Your task to perform on an android device: turn on showing notifications on the lock screen Image 0: 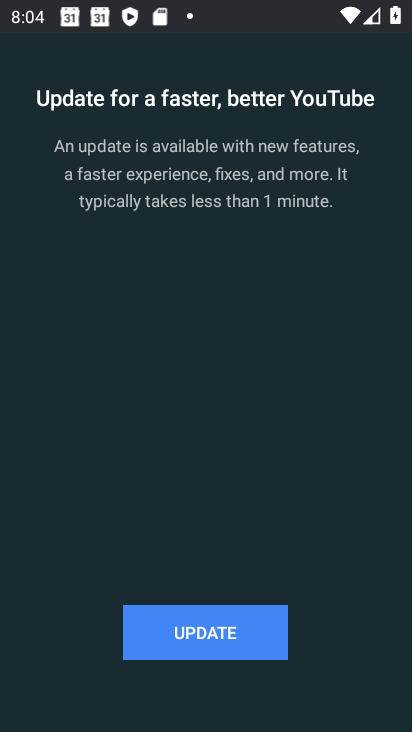
Step 0: press home button
Your task to perform on an android device: turn on showing notifications on the lock screen Image 1: 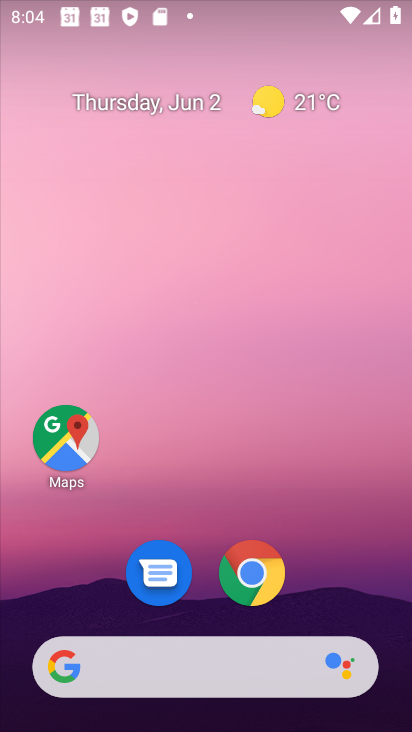
Step 1: drag from (323, 583) to (340, 76)
Your task to perform on an android device: turn on showing notifications on the lock screen Image 2: 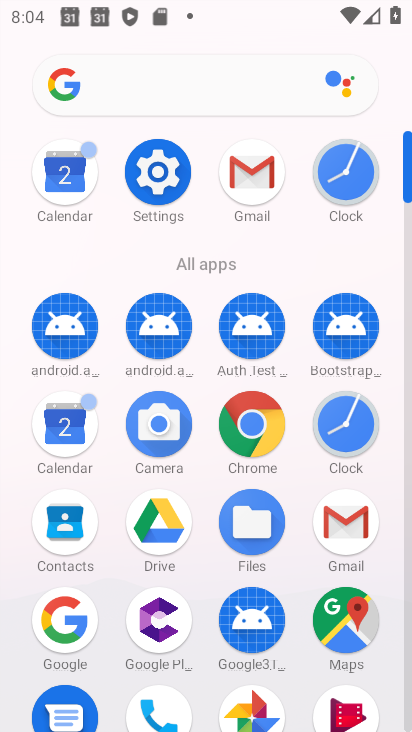
Step 2: click (158, 182)
Your task to perform on an android device: turn on showing notifications on the lock screen Image 3: 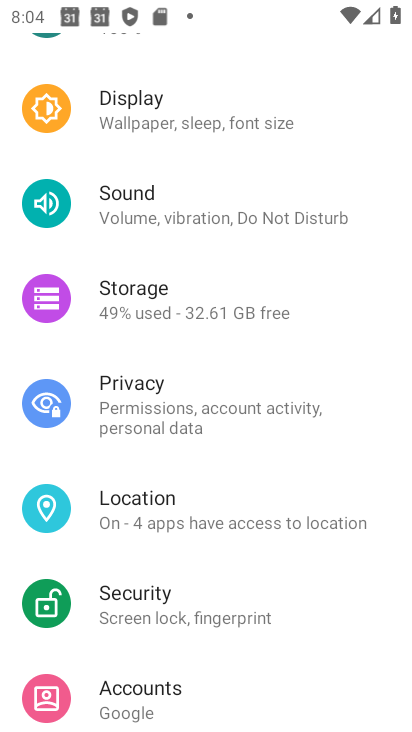
Step 3: drag from (206, 221) to (263, 530)
Your task to perform on an android device: turn on showing notifications on the lock screen Image 4: 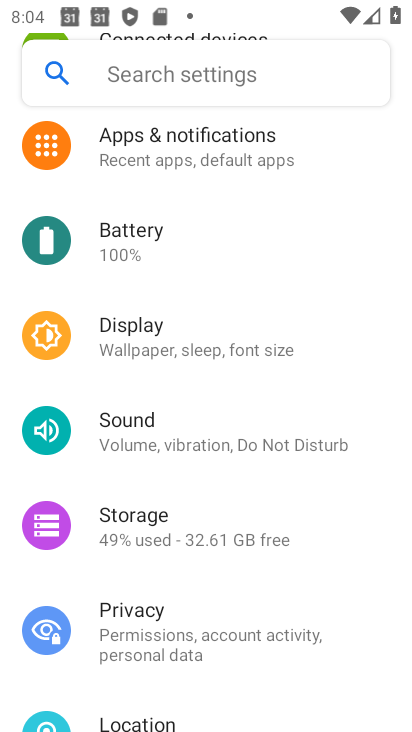
Step 4: click (184, 157)
Your task to perform on an android device: turn on showing notifications on the lock screen Image 5: 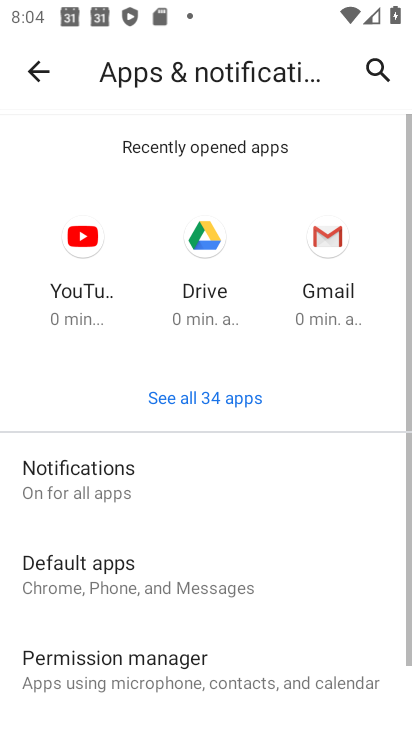
Step 5: click (125, 481)
Your task to perform on an android device: turn on showing notifications on the lock screen Image 6: 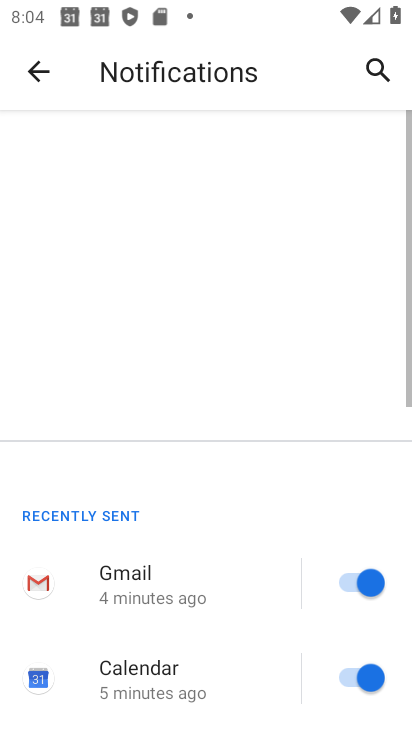
Step 6: drag from (248, 524) to (289, 44)
Your task to perform on an android device: turn on showing notifications on the lock screen Image 7: 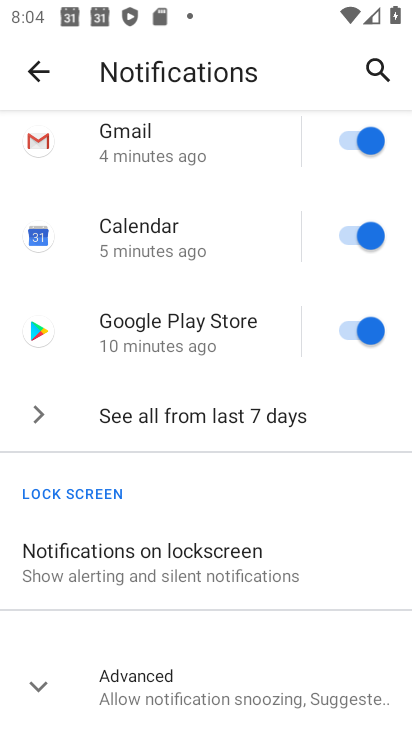
Step 7: click (187, 581)
Your task to perform on an android device: turn on showing notifications on the lock screen Image 8: 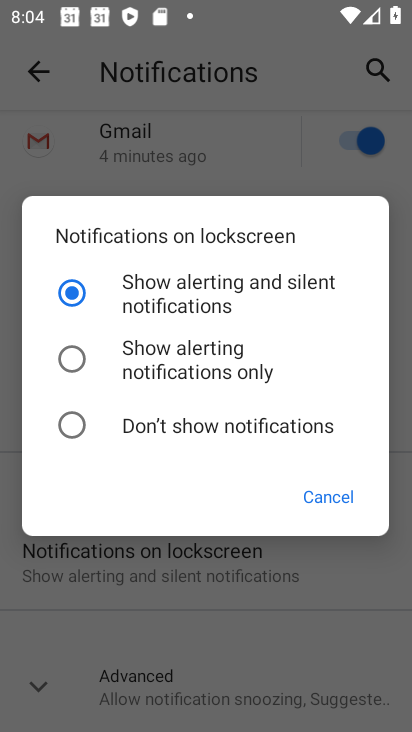
Step 8: task complete